Your task to perform on an android device: Go to notification settings Image 0: 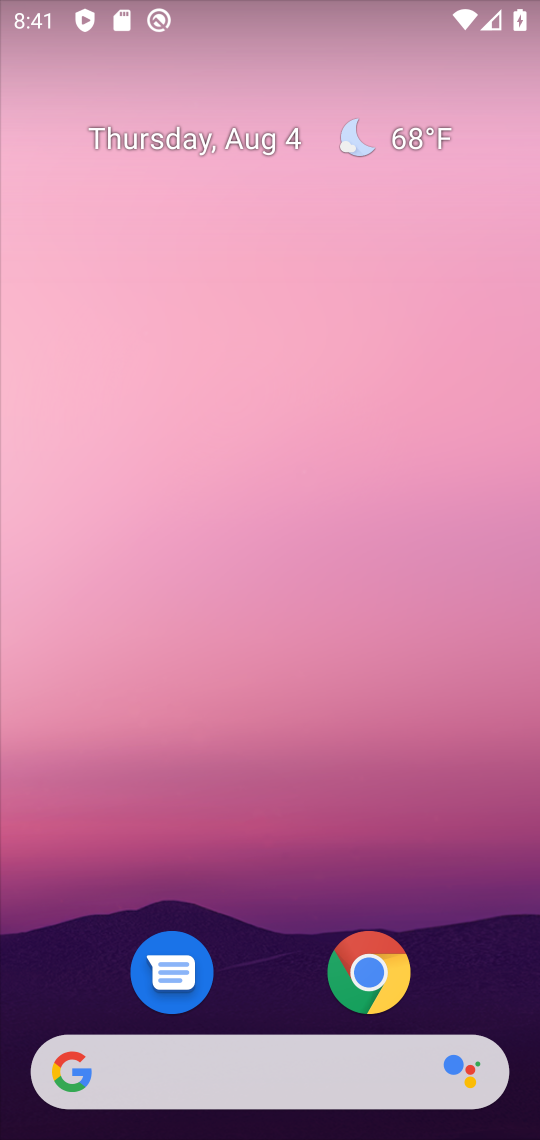
Step 0: drag from (296, 839) to (404, 18)
Your task to perform on an android device: Go to notification settings Image 1: 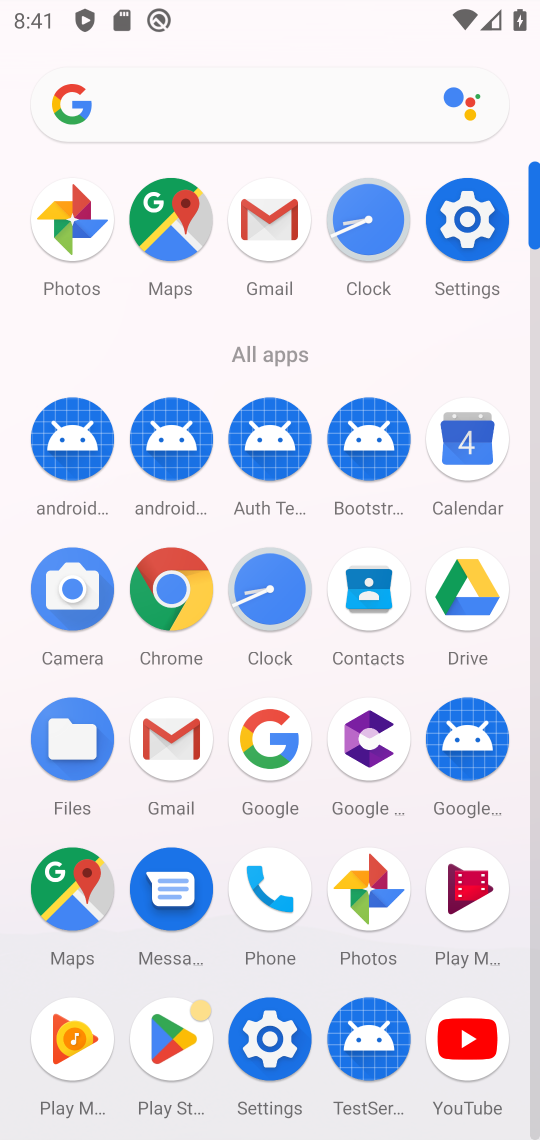
Step 1: click (476, 206)
Your task to perform on an android device: Go to notification settings Image 2: 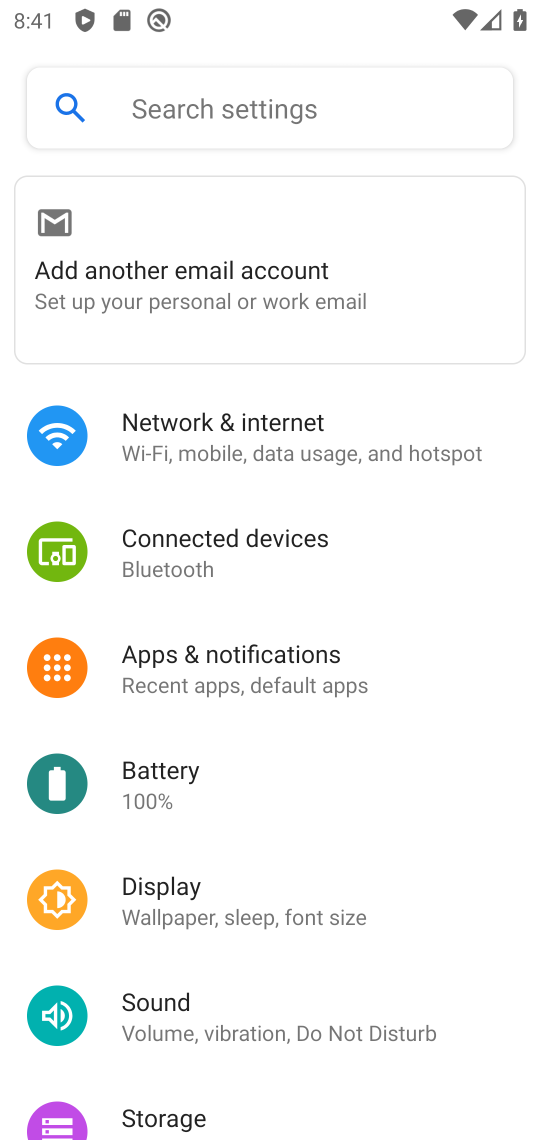
Step 2: click (288, 650)
Your task to perform on an android device: Go to notification settings Image 3: 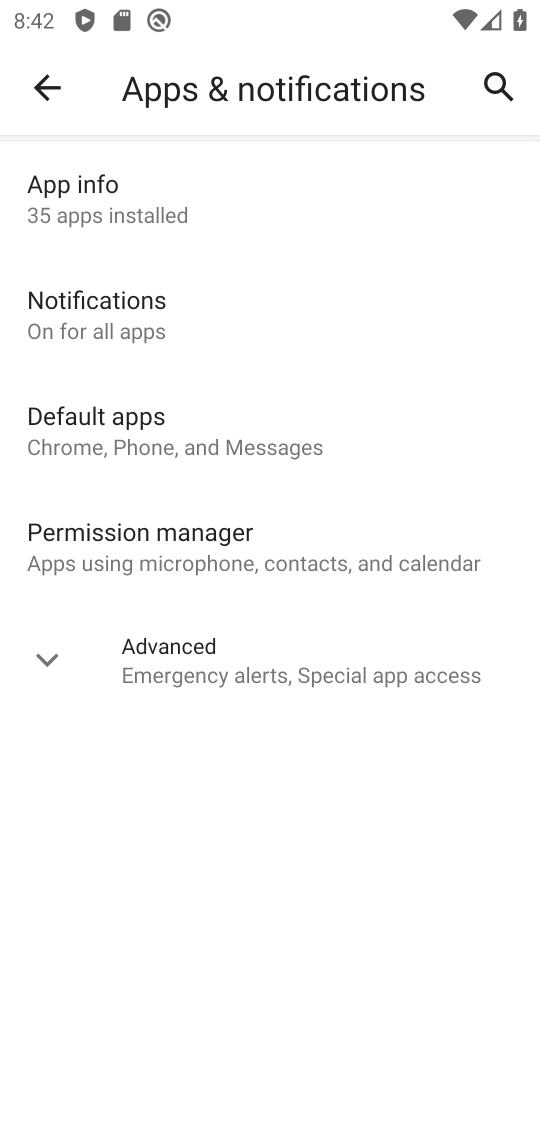
Step 3: click (131, 315)
Your task to perform on an android device: Go to notification settings Image 4: 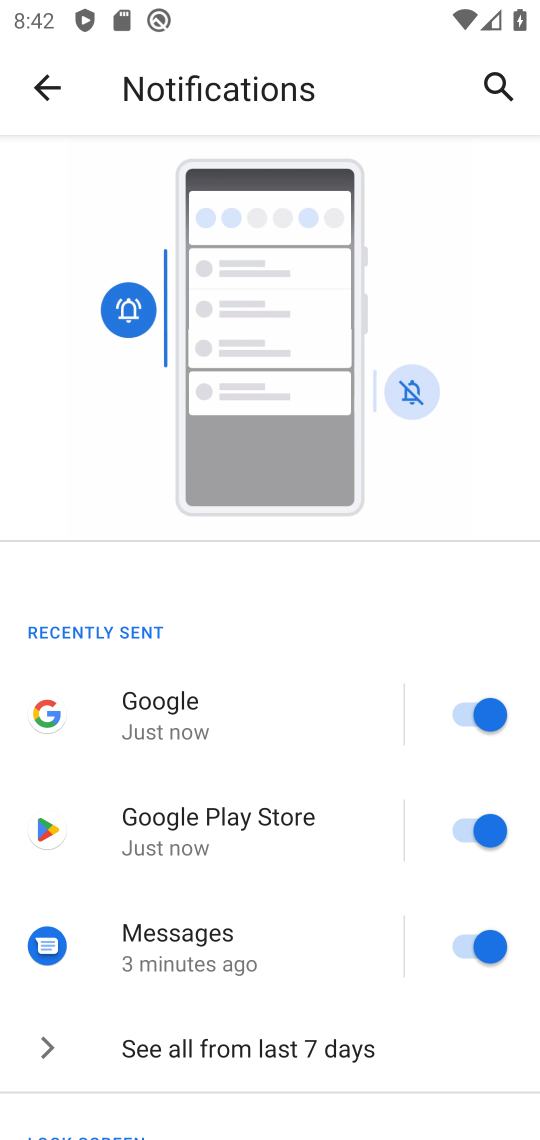
Step 4: task complete